Your task to perform on an android device: Find coffee shops on Maps Image 0: 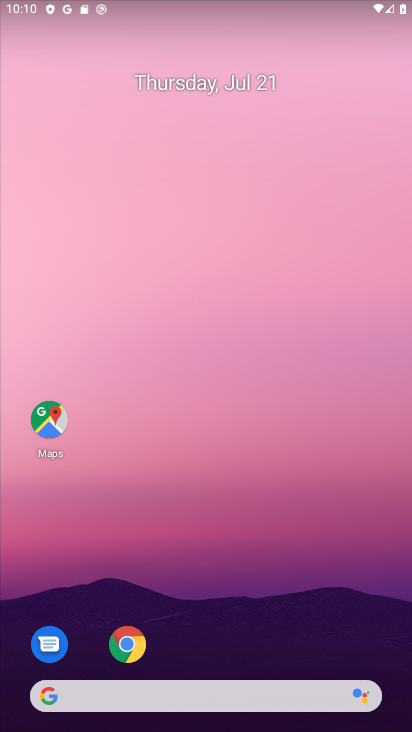
Step 0: press home button
Your task to perform on an android device: Find coffee shops on Maps Image 1: 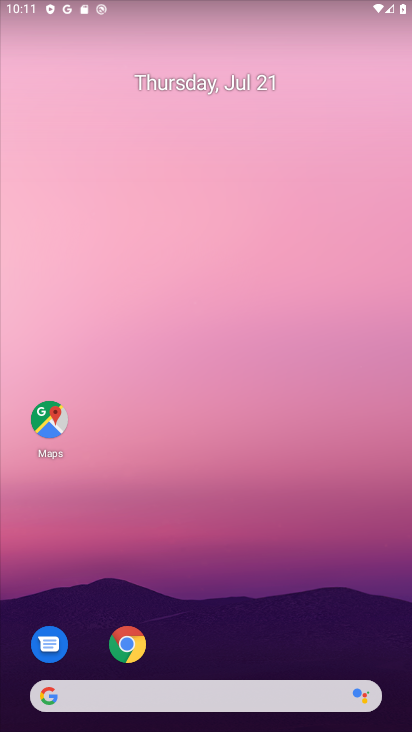
Step 1: click (48, 416)
Your task to perform on an android device: Find coffee shops on Maps Image 2: 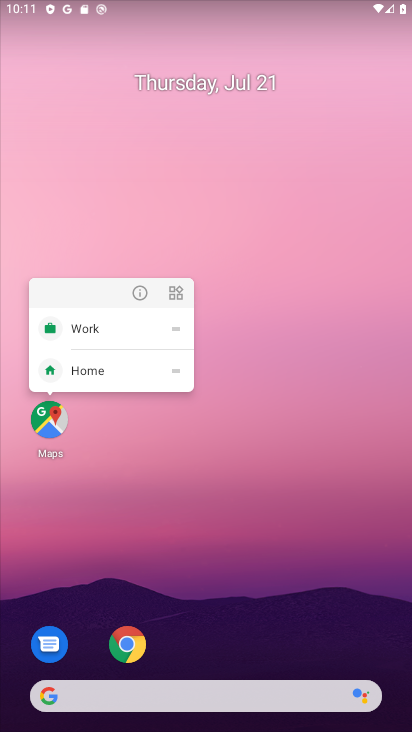
Step 2: click (45, 420)
Your task to perform on an android device: Find coffee shops on Maps Image 3: 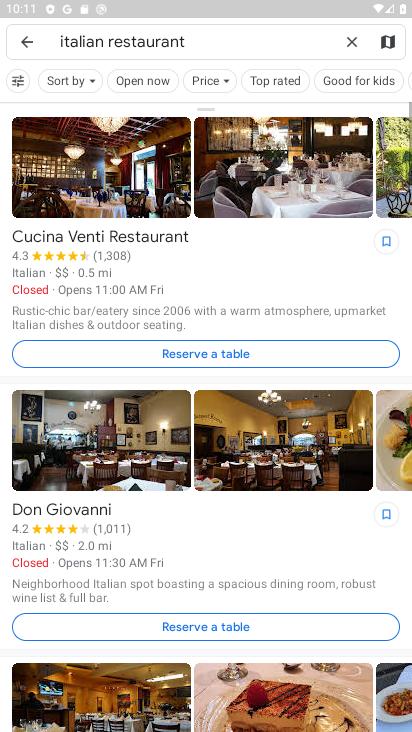
Step 3: click (350, 48)
Your task to perform on an android device: Find coffee shops on Maps Image 4: 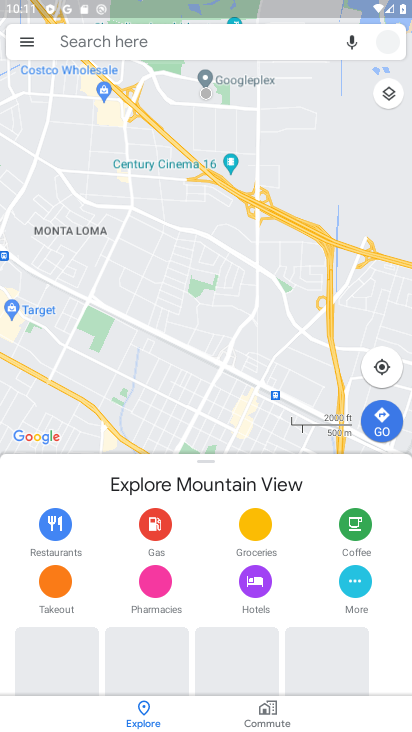
Step 4: click (93, 35)
Your task to perform on an android device: Find coffee shops on Maps Image 5: 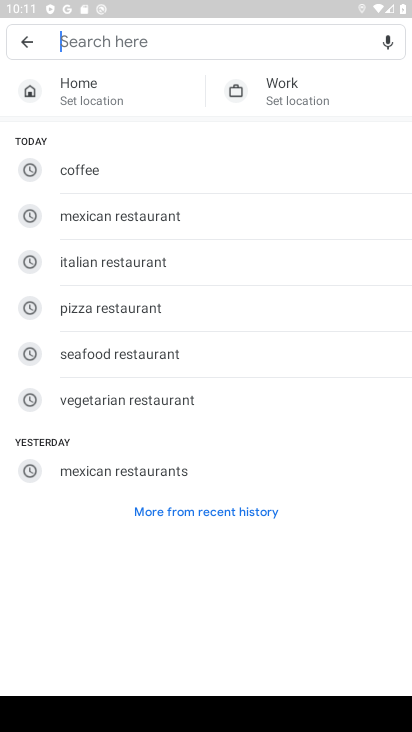
Step 5: click (109, 167)
Your task to perform on an android device: Find coffee shops on Maps Image 6: 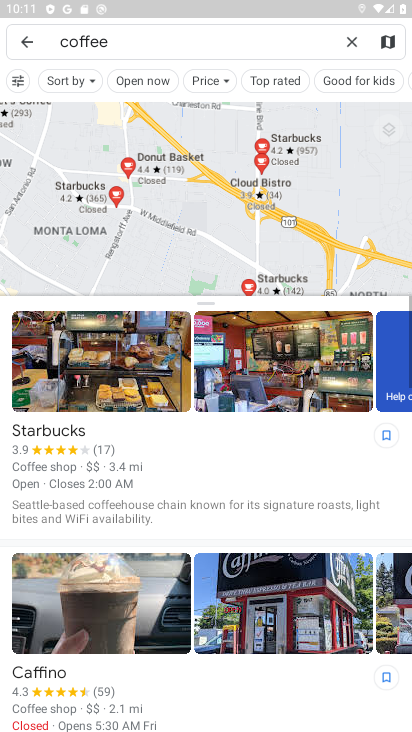
Step 6: task complete